Your task to perform on an android device: change text size in settings app Image 0: 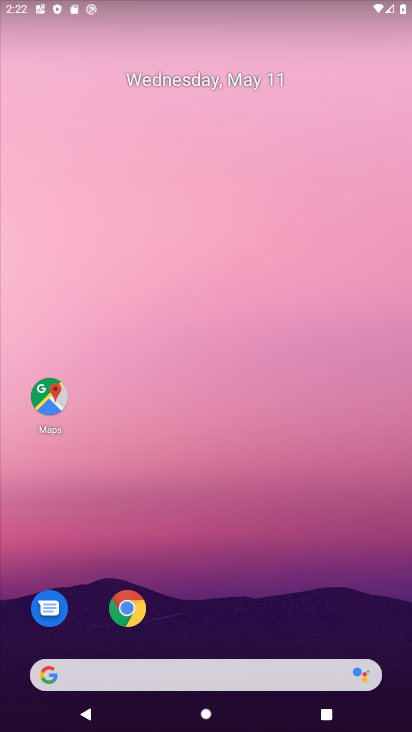
Step 0: drag from (234, 630) to (259, 338)
Your task to perform on an android device: change text size in settings app Image 1: 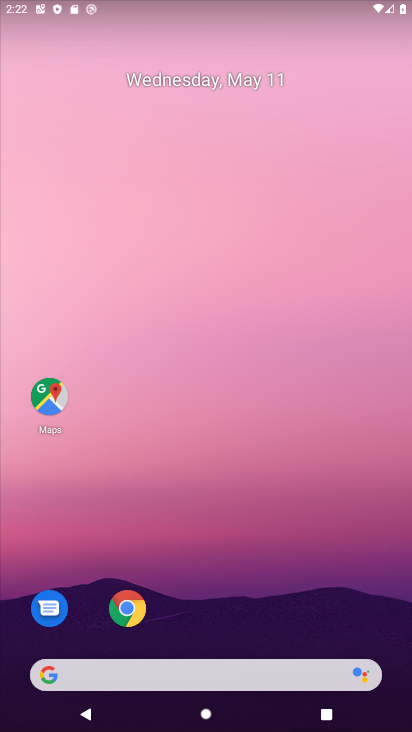
Step 1: drag from (256, 626) to (294, 139)
Your task to perform on an android device: change text size in settings app Image 2: 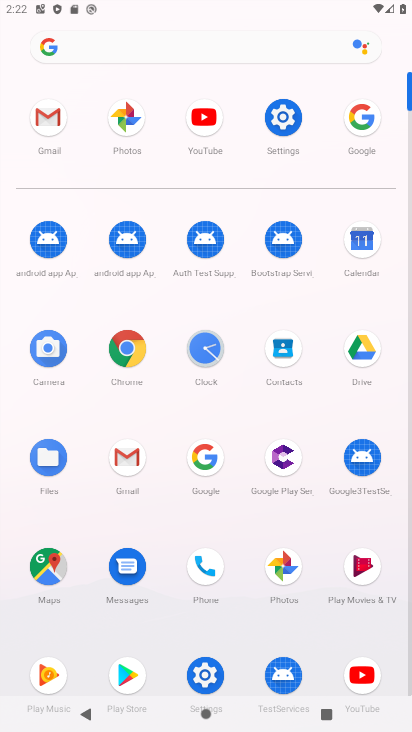
Step 2: click (284, 117)
Your task to perform on an android device: change text size in settings app Image 3: 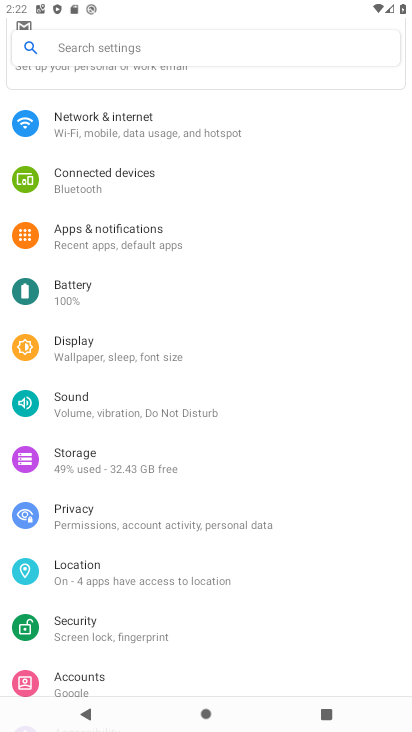
Step 3: click (104, 344)
Your task to perform on an android device: change text size in settings app Image 4: 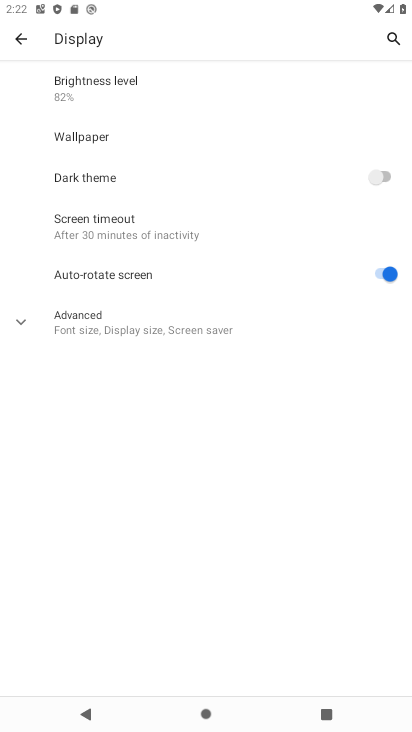
Step 4: click (108, 330)
Your task to perform on an android device: change text size in settings app Image 5: 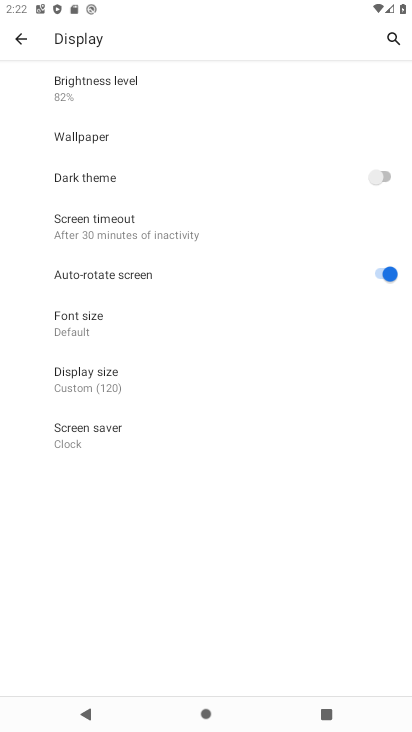
Step 5: click (85, 325)
Your task to perform on an android device: change text size in settings app Image 6: 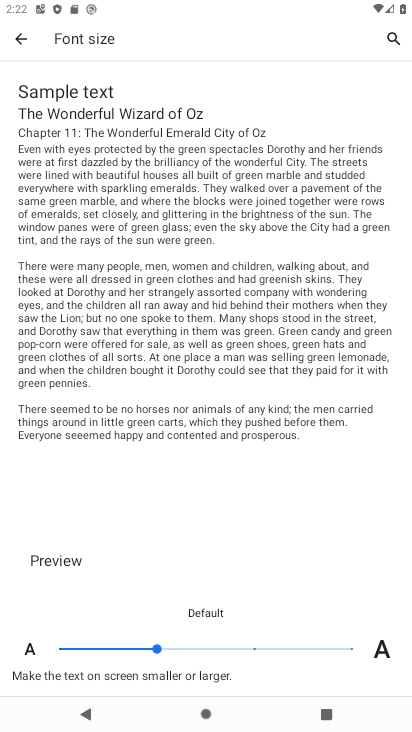
Step 6: click (60, 649)
Your task to perform on an android device: change text size in settings app Image 7: 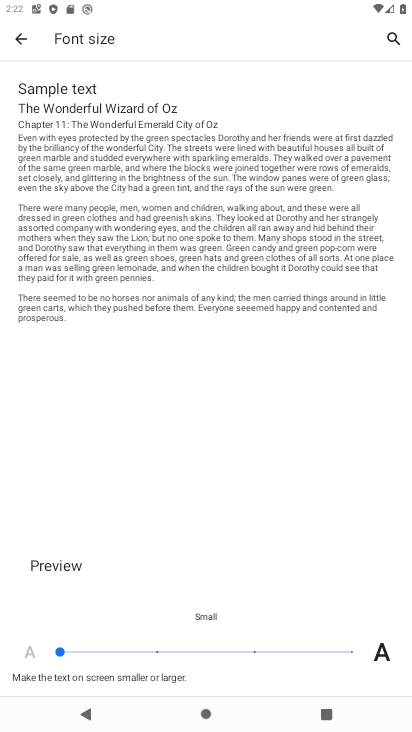
Step 7: task complete